Your task to perform on an android device: empty trash in the gmail app Image 0: 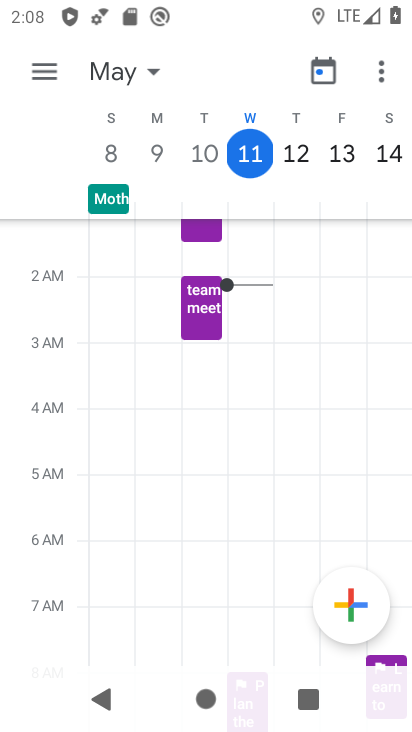
Step 0: press back button
Your task to perform on an android device: empty trash in the gmail app Image 1: 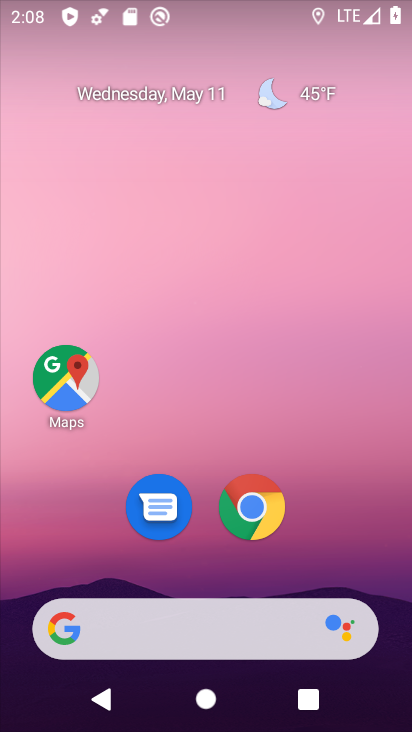
Step 1: drag from (329, 527) to (226, 32)
Your task to perform on an android device: empty trash in the gmail app Image 2: 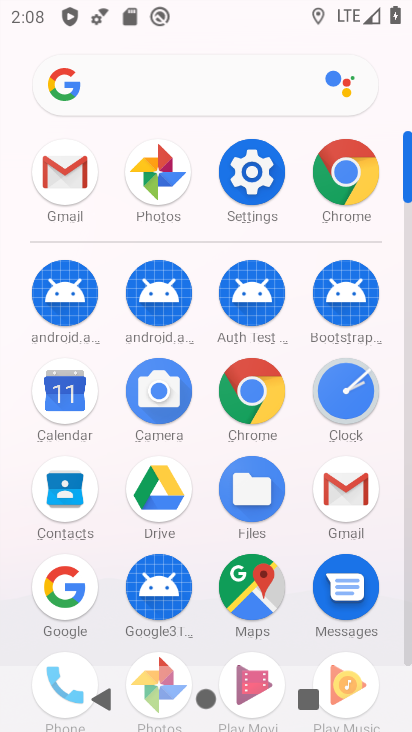
Step 2: click (61, 168)
Your task to perform on an android device: empty trash in the gmail app Image 3: 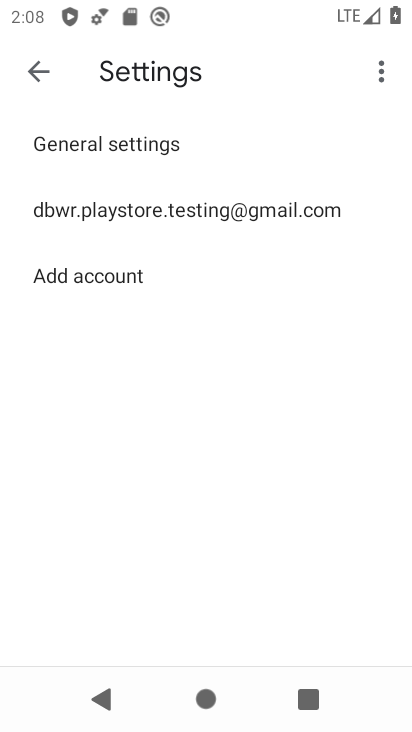
Step 3: click (35, 73)
Your task to perform on an android device: empty trash in the gmail app Image 4: 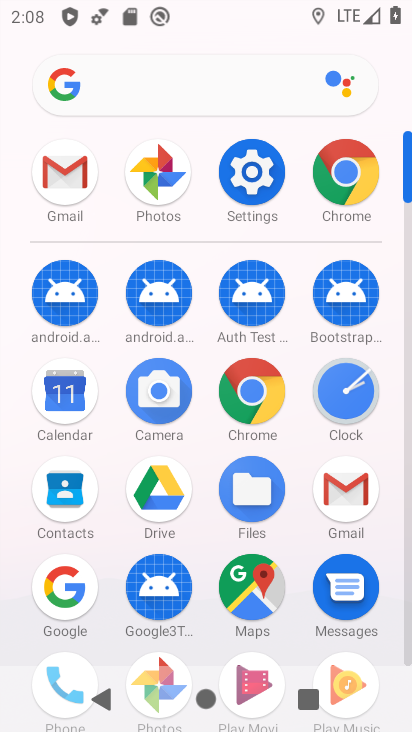
Step 4: click (59, 168)
Your task to perform on an android device: empty trash in the gmail app Image 5: 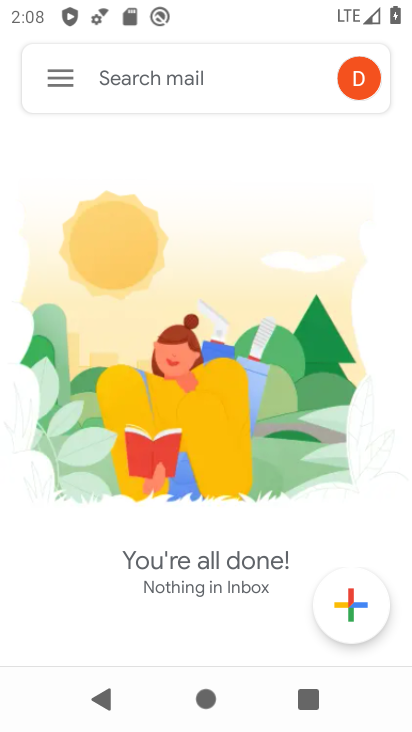
Step 5: click (58, 77)
Your task to perform on an android device: empty trash in the gmail app Image 6: 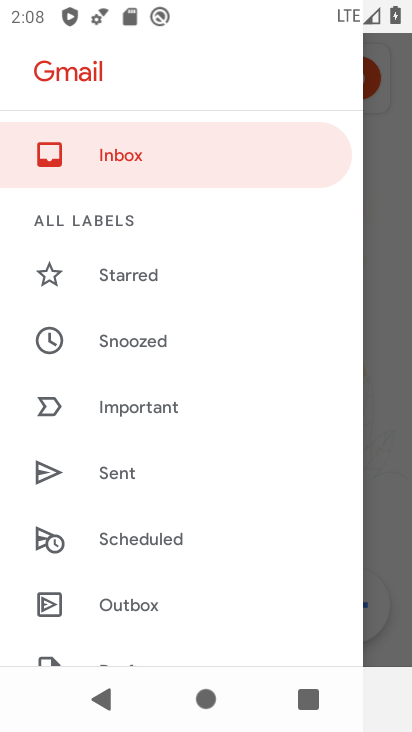
Step 6: drag from (185, 550) to (196, 165)
Your task to perform on an android device: empty trash in the gmail app Image 7: 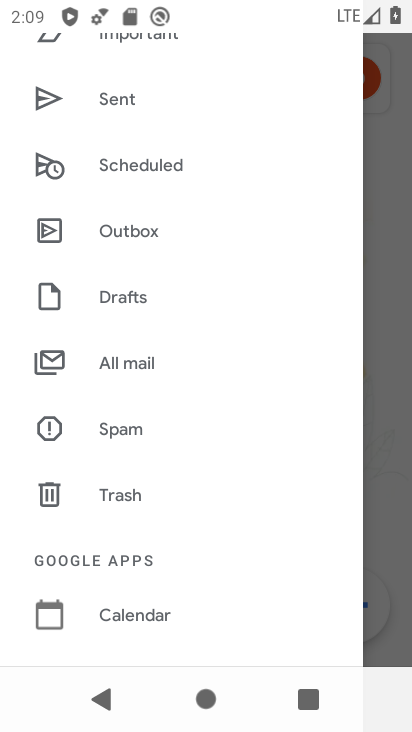
Step 7: drag from (188, 500) to (186, 162)
Your task to perform on an android device: empty trash in the gmail app Image 8: 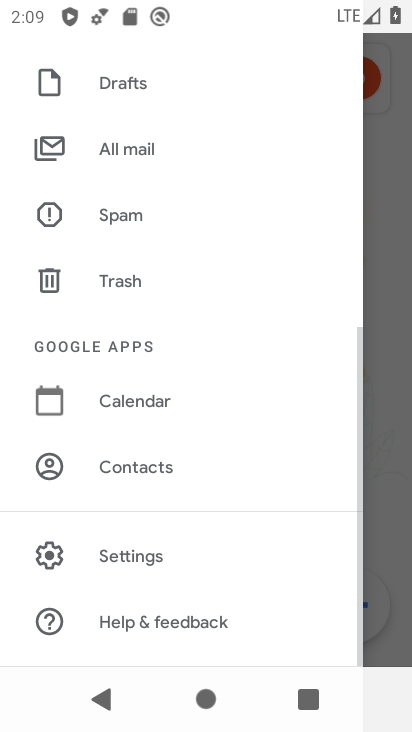
Step 8: drag from (180, 417) to (171, 155)
Your task to perform on an android device: empty trash in the gmail app Image 9: 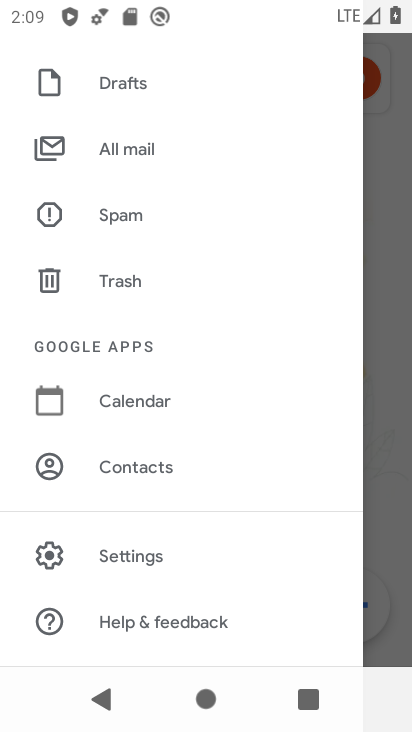
Step 9: drag from (195, 142) to (217, 557)
Your task to perform on an android device: empty trash in the gmail app Image 10: 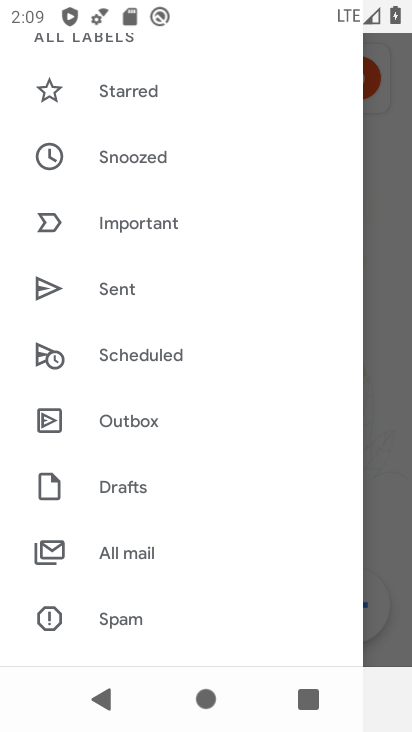
Step 10: drag from (194, 561) to (209, 272)
Your task to perform on an android device: empty trash in the gmail app Image 11: 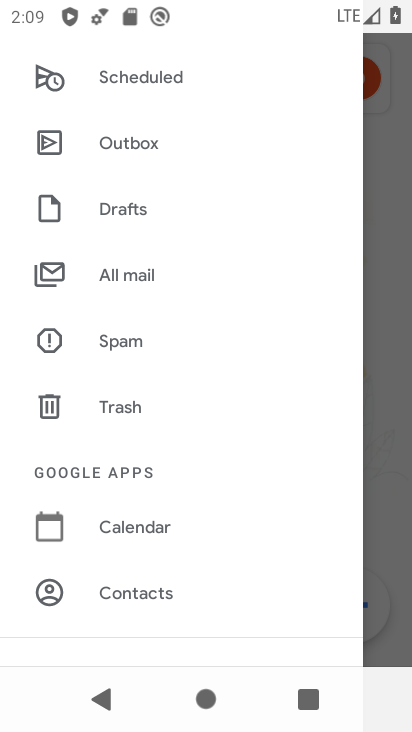
Step 11: click (138, 402)
Your task to perform on an android device: empty trash in the gmail app Image 12: 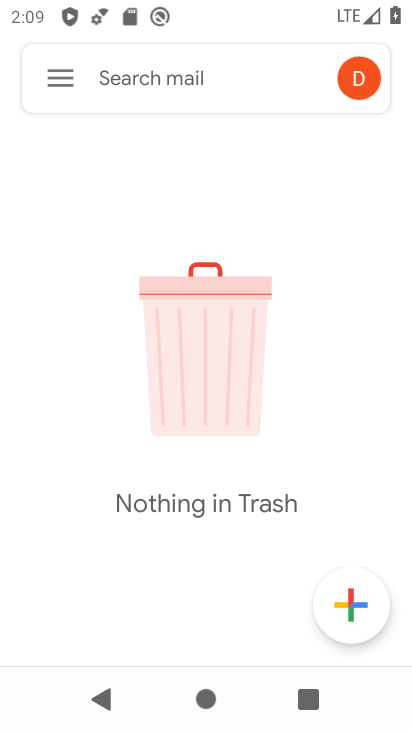
Step 12: task complete